Your task to perform on an android device: delete browsing data in the chrome app Image 0: 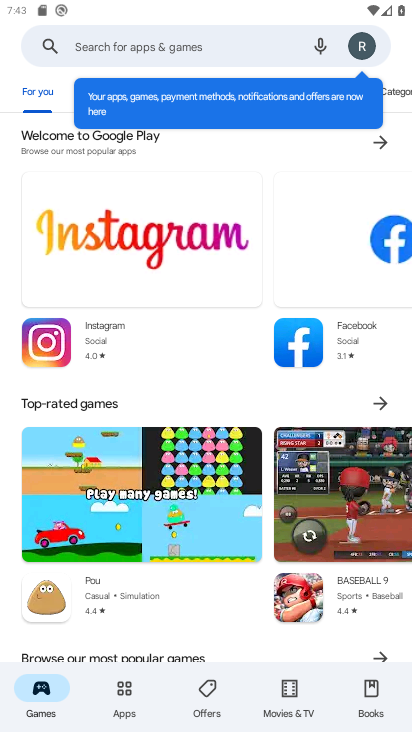
Step 0: press home button
Your task to perform on an android device: delete browsing data in the chrome app Image 1: 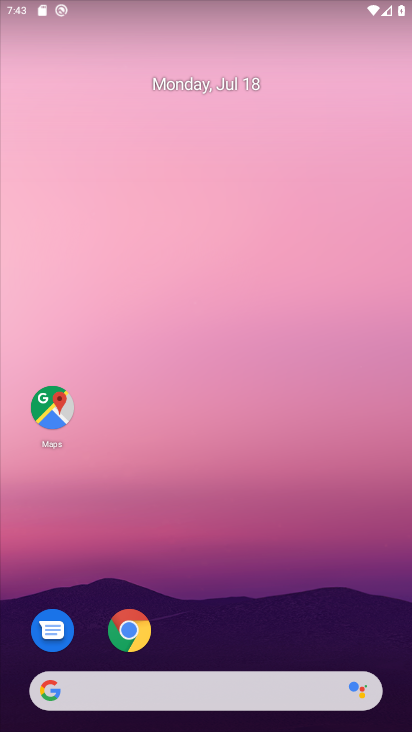
Step 1: click (134, 647)
Your task to perform on an android device: delete browsing data in the chrome app Image 2: 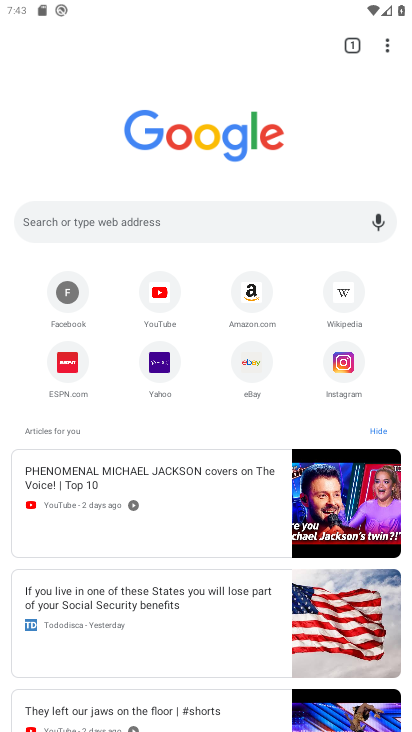
Step 2: click (380, 43)
Your task to perform on an android device: delete browsing data in the chrome app Image 3: 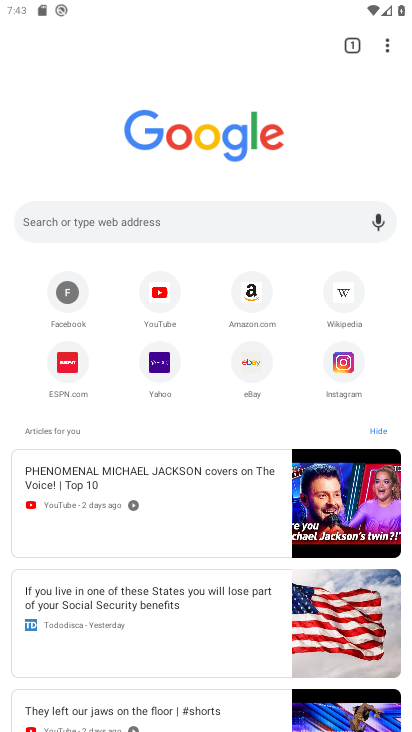
Step 3: click (390, 48)
Your task to perform on an android device: delete browsing data in the chrome app Image 4: 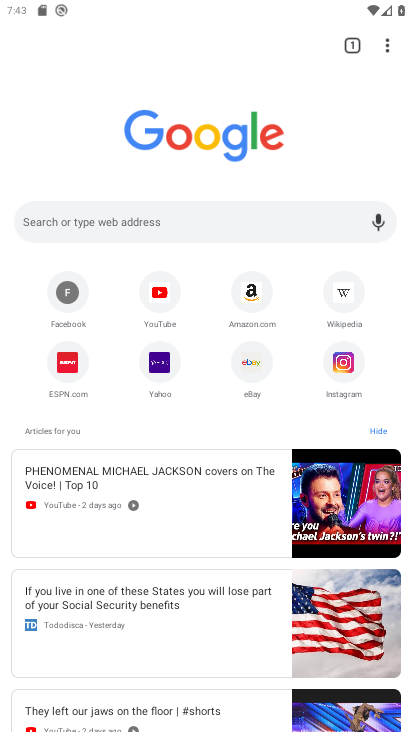
Step 4: click (390, 48)
Your task to perform on an android device: delete browsing data in the chrome app Image 5: 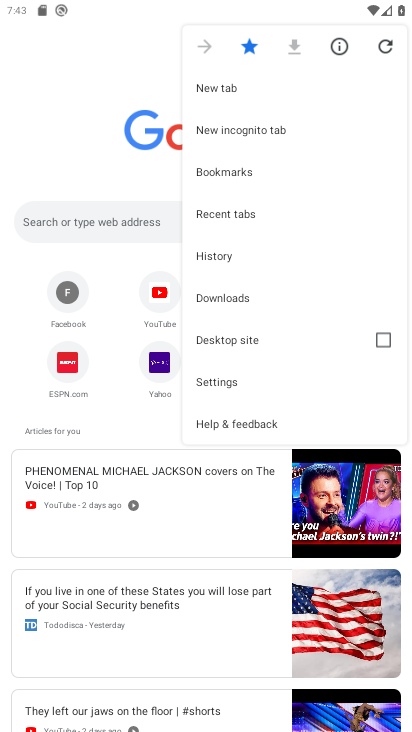
Step 5: click (234, 376)
Your task to perform on an android device: delete browsing data in the chrome app Image 6: 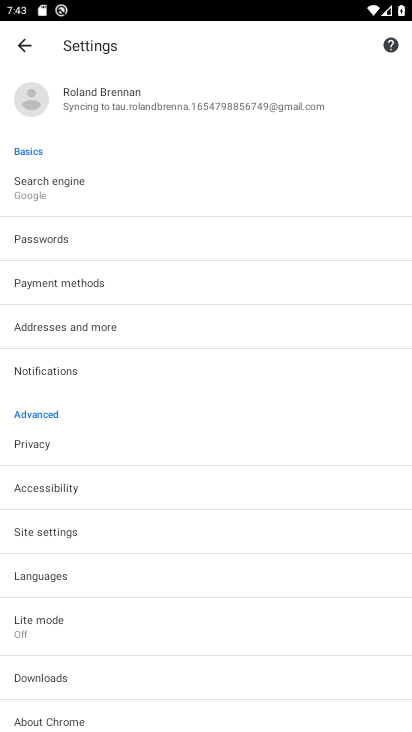
Step 6: click (55, 440)
Your task to perform on an android device: delete browsing data in the chrome app Image 7: 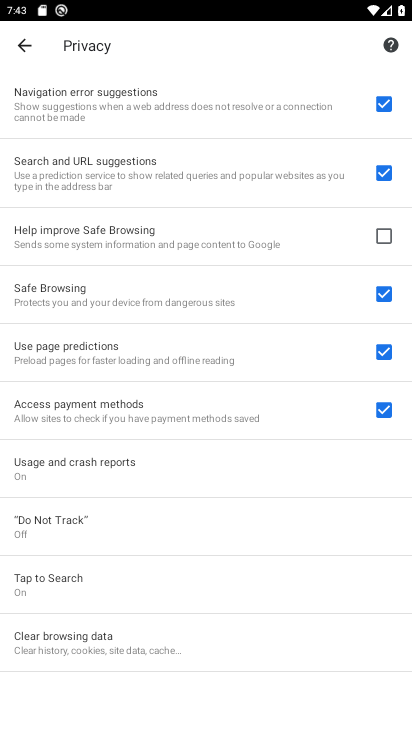
Step 7: click (97, 652)
Your task to perform on an android device: delete browsing data in the chrome app Image 8: 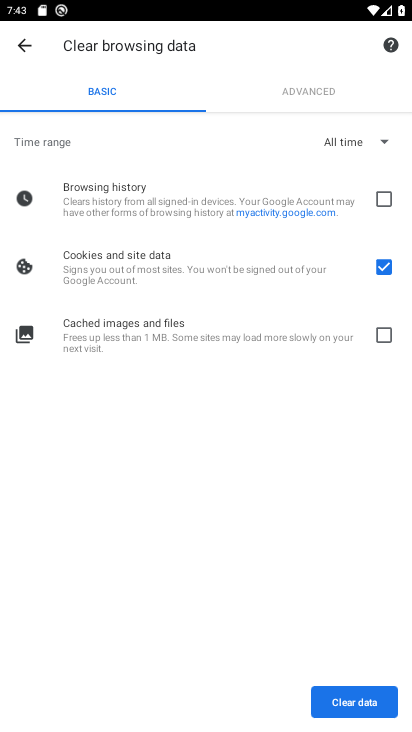
Step 8: click (342, 706)
Your task to perform on an android device: delete browsing data in the chrome app Image 9: 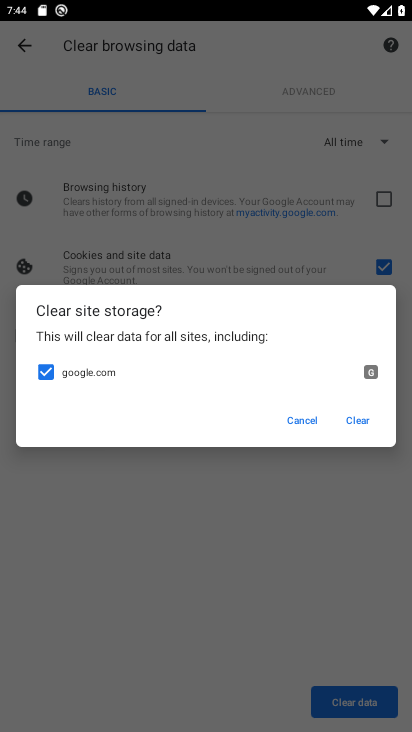
Step 9: click (354, 409)
Your task to perform on an android device: delete browsing data in the chrome app Image 10: 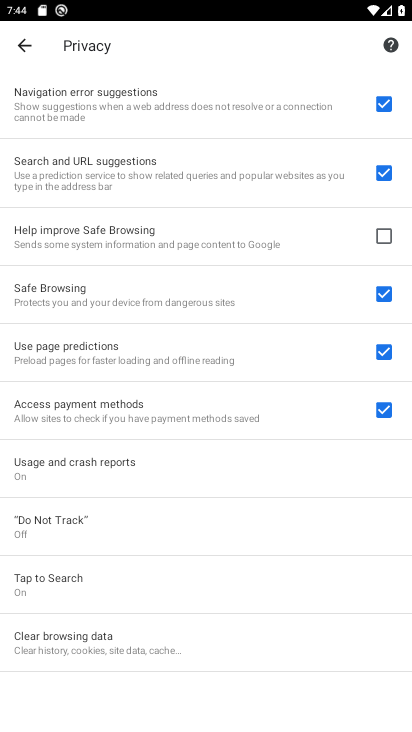
Step 10: task complete